Your task to perform on an android device: Find coffee shops on Maps Image 0: 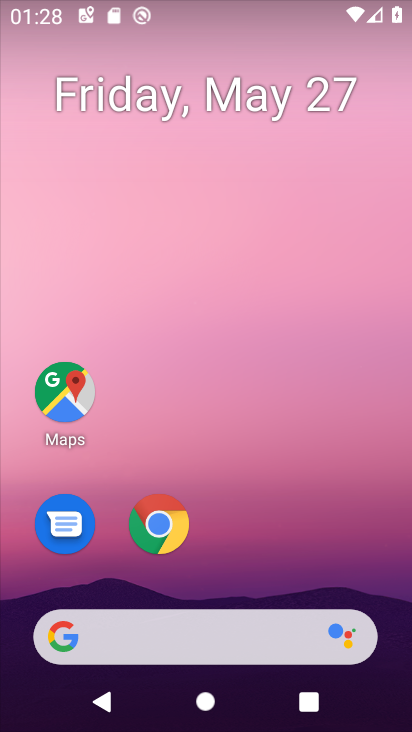
Step 0: click (74, 387)
Your task to perform on an android device: Find coffee shops on Maps Image 1: 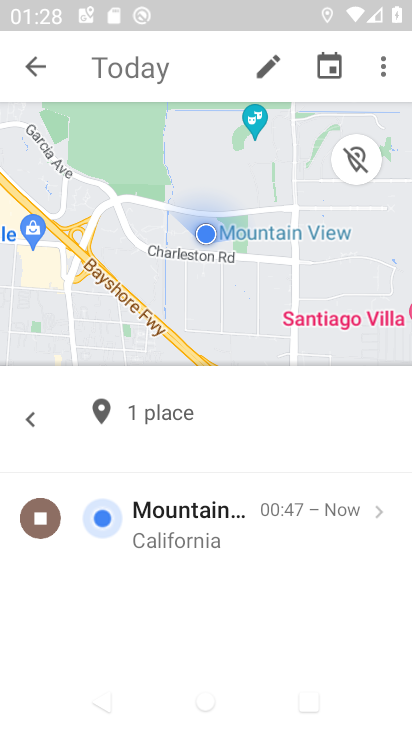
Step 1: click (35, 60)
Your task to perform on an android device: Find coffee shops on Maps Image 2: 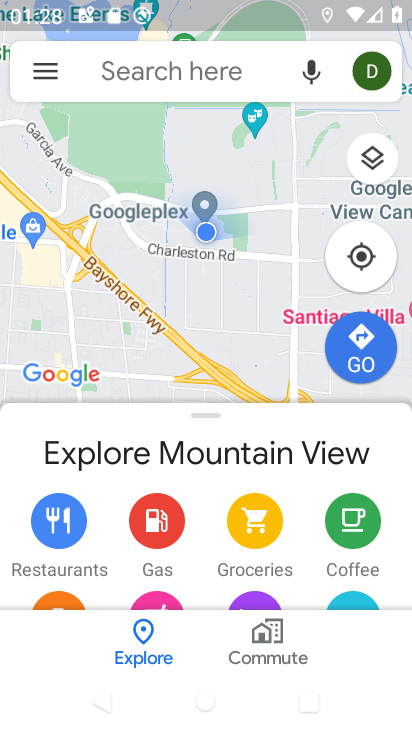
Step 2: click (99, 60)
Your task to perform on an android device: Find coffee shops on Maps Image 3: 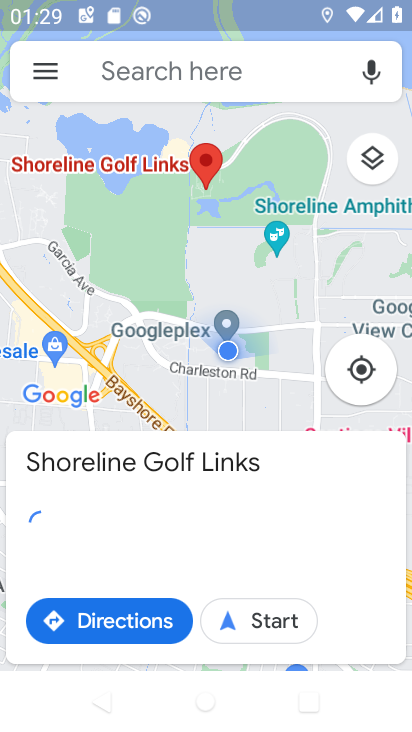
Step 3: click (99, 60)
Your task to perform on an android device: Find coffee shops on Maps Image 4: 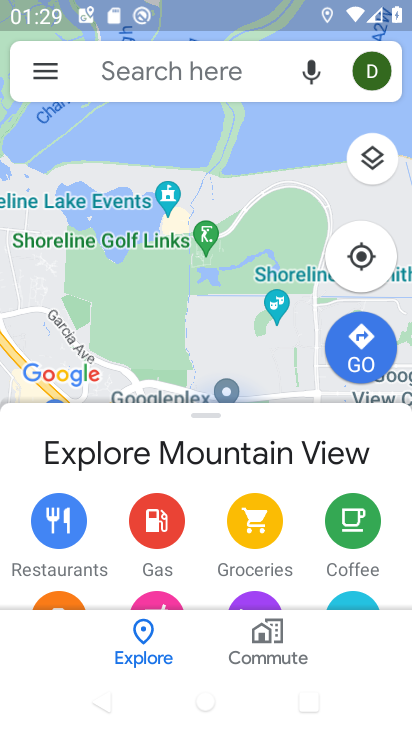
Step 4: click (110, 53)
Your task to perform on an android device: Find coffee shops on Maps Image 5: 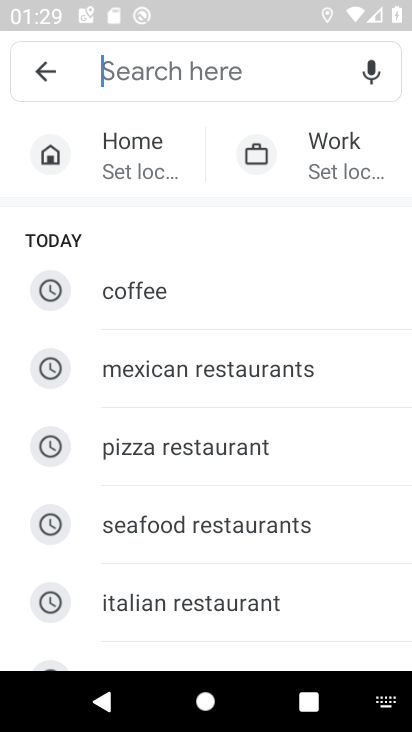
Step 5: click (147, 291)
Your task to perform on an android device: Find coffee shops on Maps Image 6: 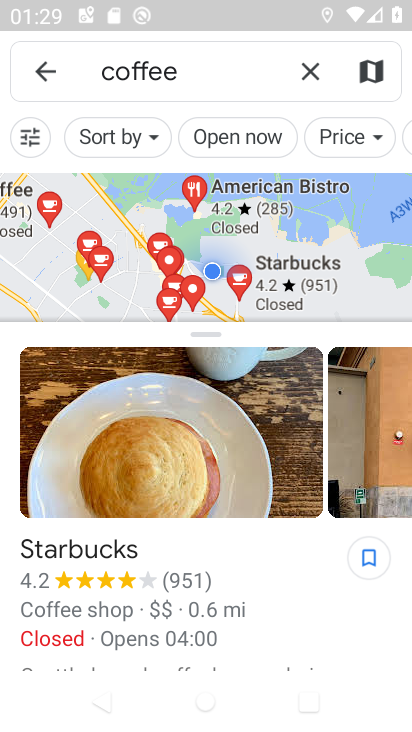
Step 6: task complete